Your task to perform on an android device: toggle priority inbox in the gmail app Image 0: 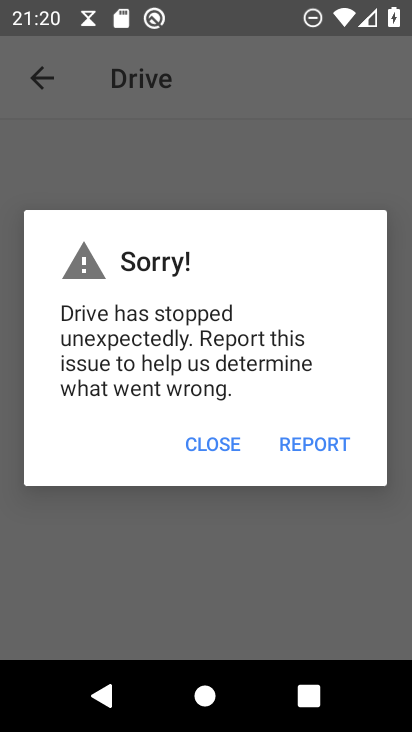
Step 0: press home button
Your task to perform on an android device: toggle priority inbox in the gmail app Image 1: 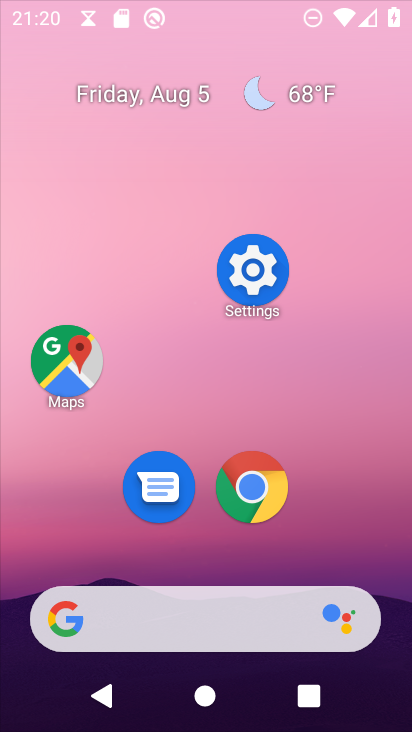
Step 1: press home button
Your task to perform on an android device: toggle priority inbox in the gmail app Image 2: 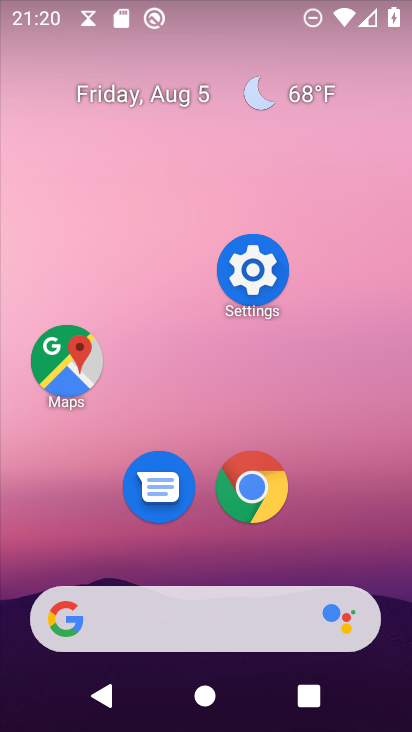
Step 2: drag from (198, 622) to (262, 152)
Your task to perform on an android device: toggle priority inbox in the gmail app Image 3: 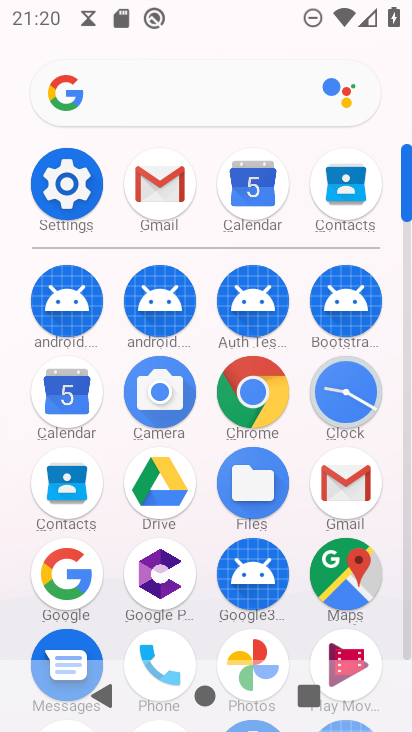
Step 3: click (161, 191)
Your task to perform on an android device: toggle priority inbox in the gmail app Image 4: 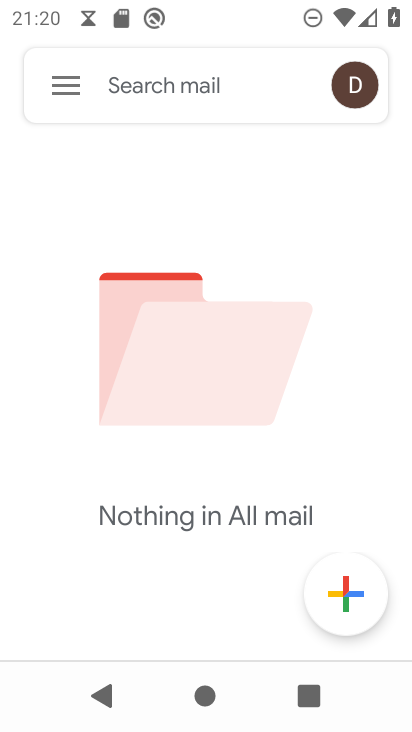
Step 4: click (56, 83)
Your task to perform on an android device: toggle priority inbox in the gmail app Image 5: 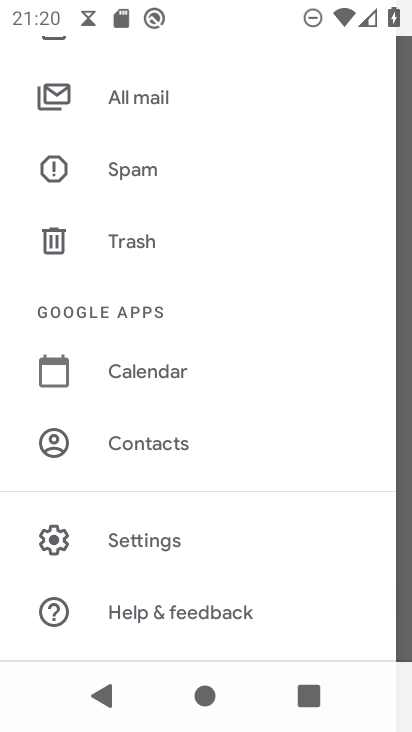
Step 5: click (169, 538)
Your task to perform on an android device: toggle priority inbox in the gmail app Image 6: 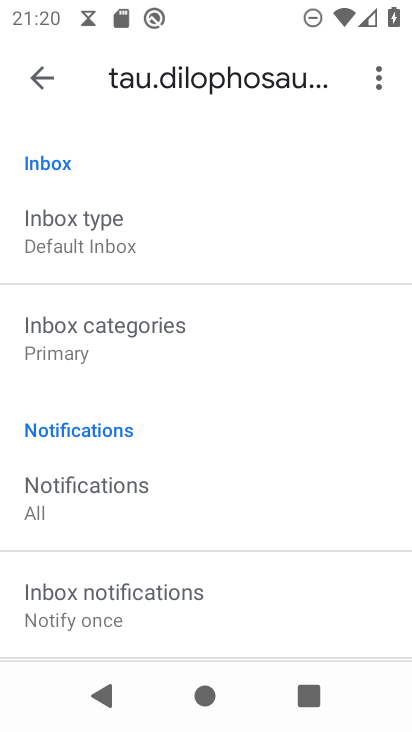
Step 6: click (133, 244)
Your task to perform on an android device: toggle priority inbox in the gmail app Image 7: 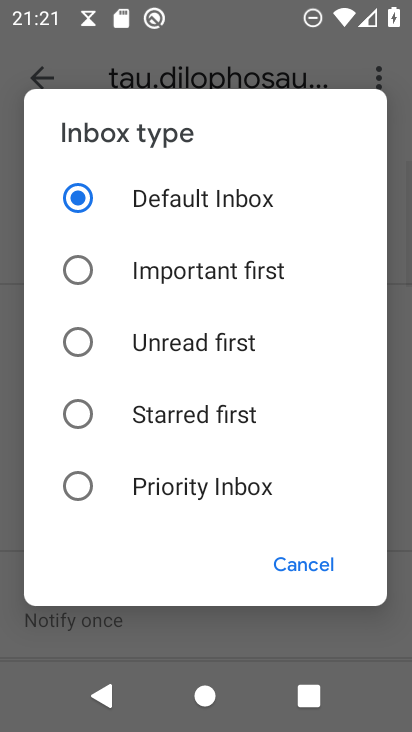
Step 7: click (73, 490)
Your task to perform on an android device: toggle priority inbox in the gmail app Image 8: 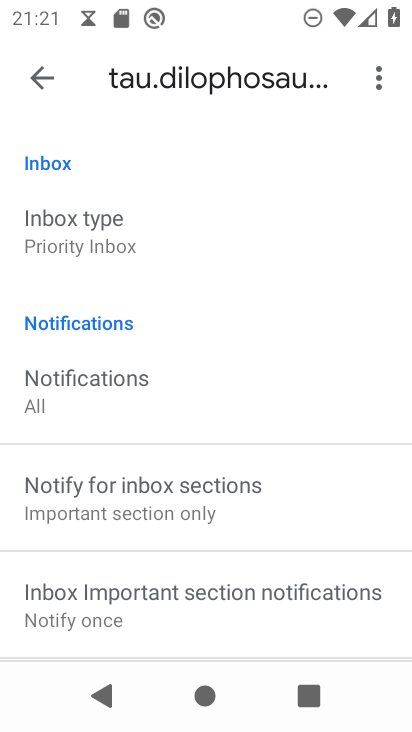
Step 8: task complete